Your task to perform on an android device: empty trash in the gmail app Image 0: 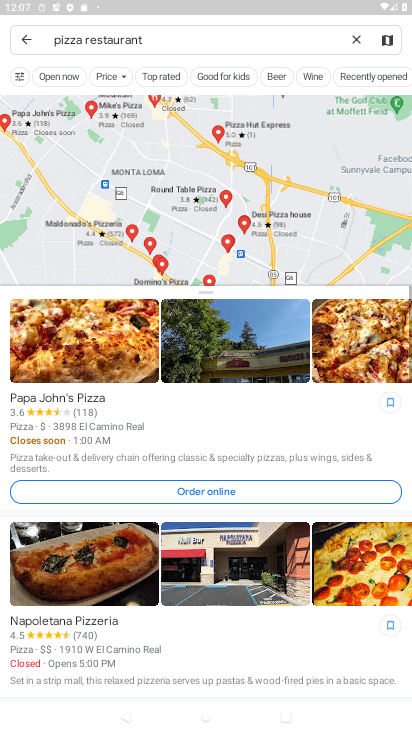
Step 0: press home button
Your task to perform on an android device: empty trash in the gmail app Image 1: 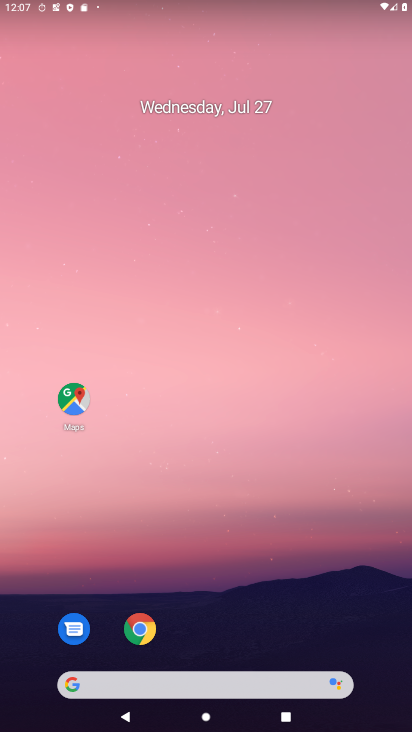
Step 1: drag from (341, 630) to (263, 110)
Your task to perform on an android device: empty trash in the gmail app Image 2: 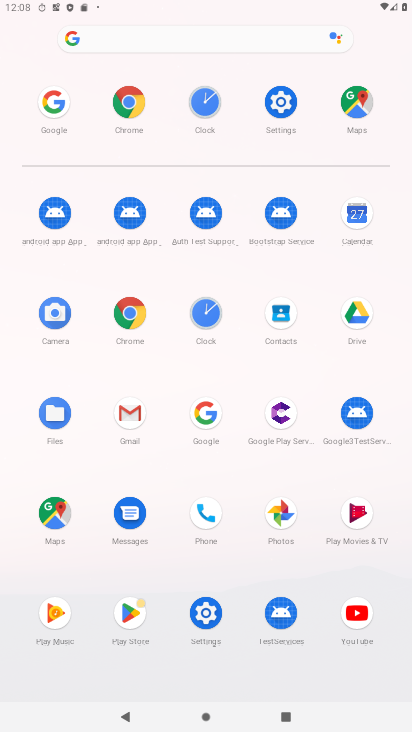
Step 2: click (128, 415)
Your task to perform on an android device: empty trash in the gmail app Image 3: 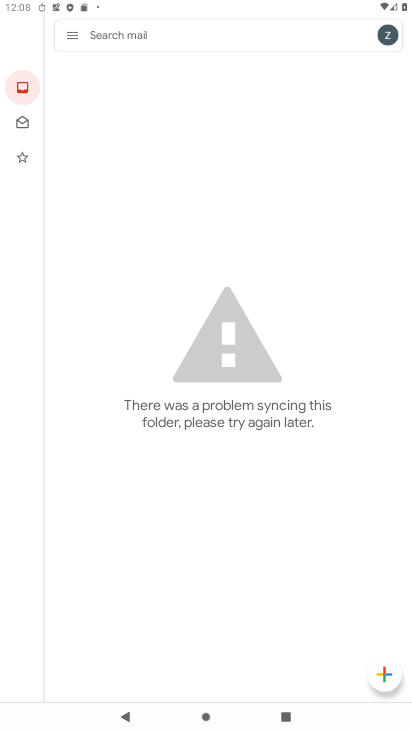
Step 3: click (67, 30)
Your task to perform on an android device: empty trash in the gmail app Image 4: 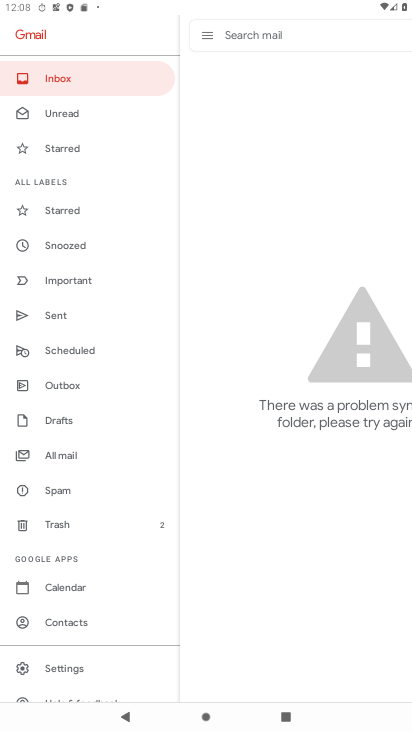
Step 4: click (59, 522)
Your task to perform on an android device: empty trash in the gmail app Image 5: 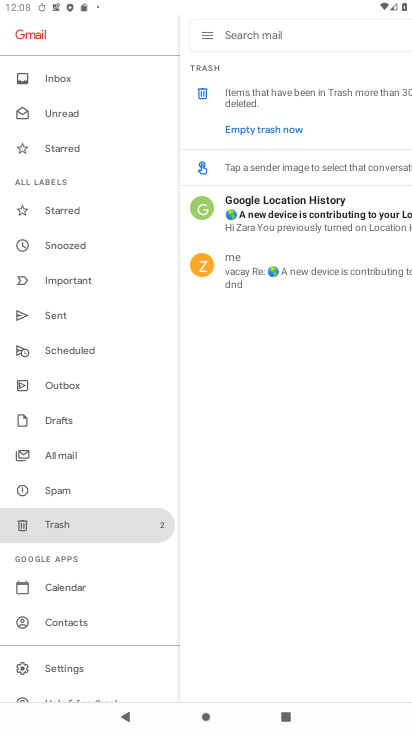
Step 5: click (247, 128)
Your task to perform on an android device: empty trash in the gmail app Image 6: 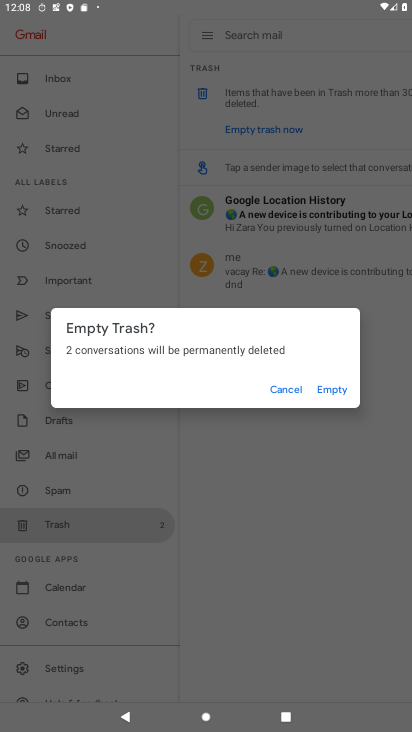
Step 6: click (326, 390)
Your task to perform on an android device: empty trash in the gmail app Image 7: 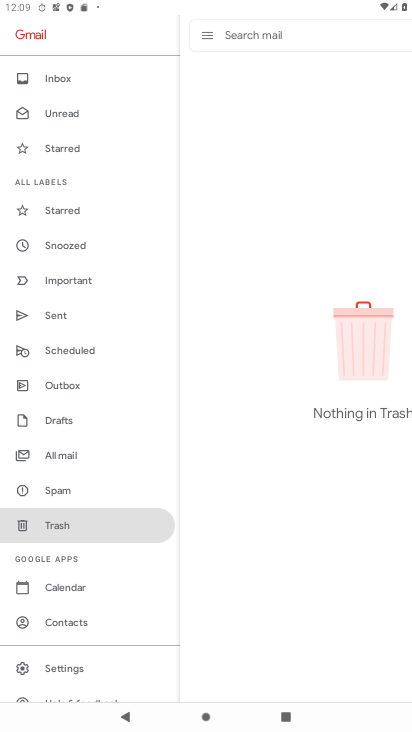
Step 7: task complete